Your task to perform on an android device: Open the phone app and click the voicemail tab. Image 0: 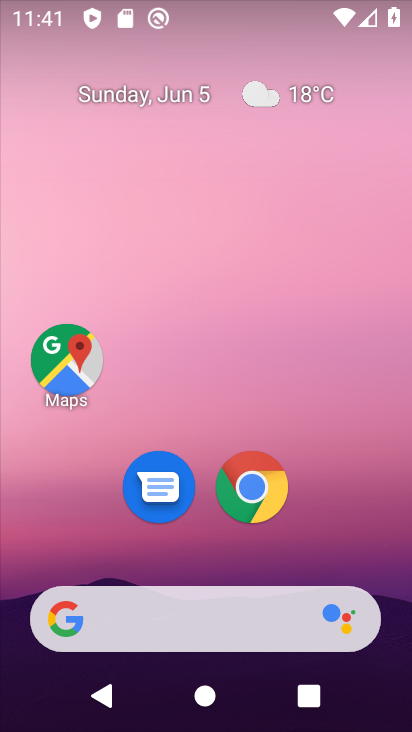
Step 0: drag from (324, 513) to (344, 175)
Your task to perform on an android device: Open the phone app and click the voicemail tab. Image 1: 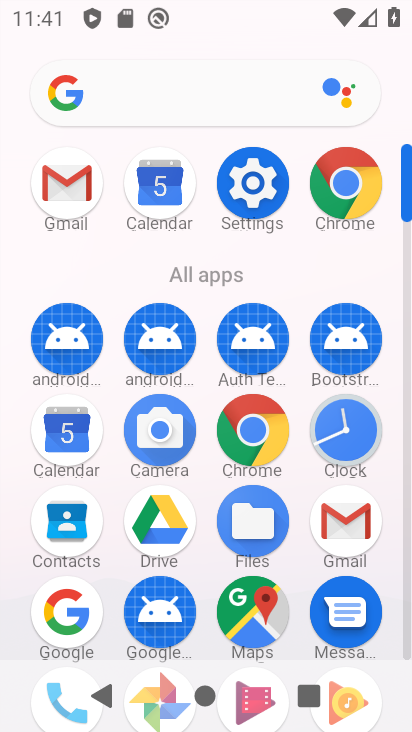
Step 1: drag from (305, 523) to (304, 289)
Your task to perform on an android device: Open the phone app and click the voicemail tab. Image 2: 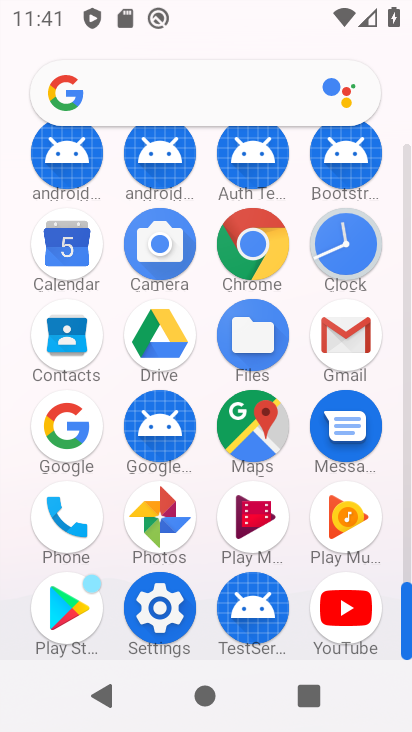
Step 2: click (69, 554)
Your task to perform on an android device: Open the phone app and click the voicemail tab. Image 3: 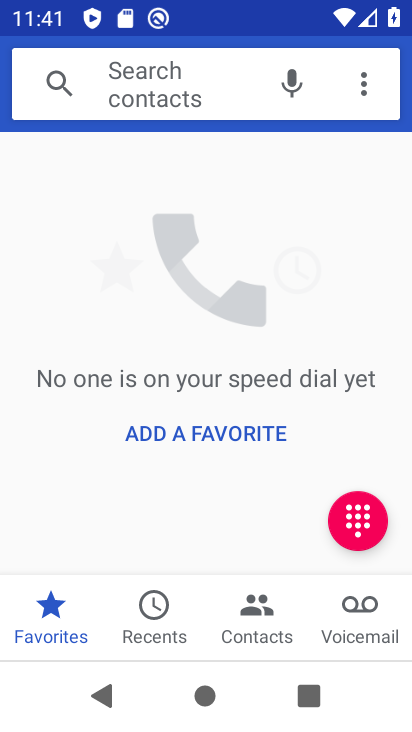
Step 3: click (356, 603)
Your task to perform on an android device: Open the phone app and click the voicemail tab. Image 4: 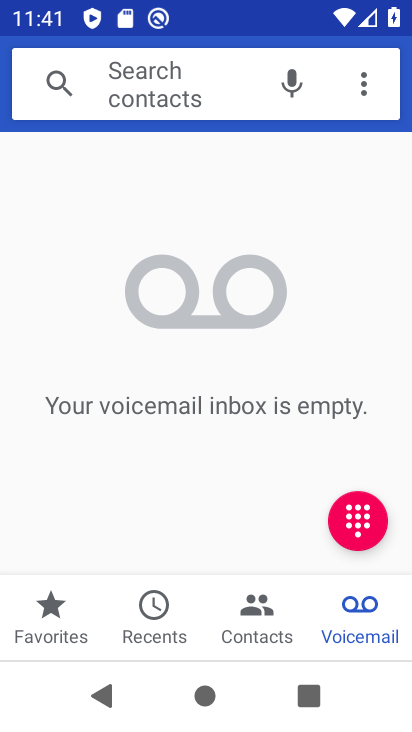
Step 4: task complete